Your task to perform on an android device: turn on location history Image 0: 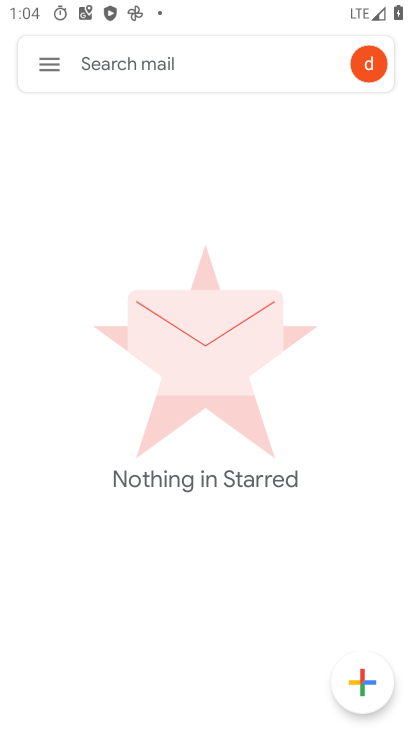
Step 0: press home button
Your task to perform on an android device: turn on location history Image 1: 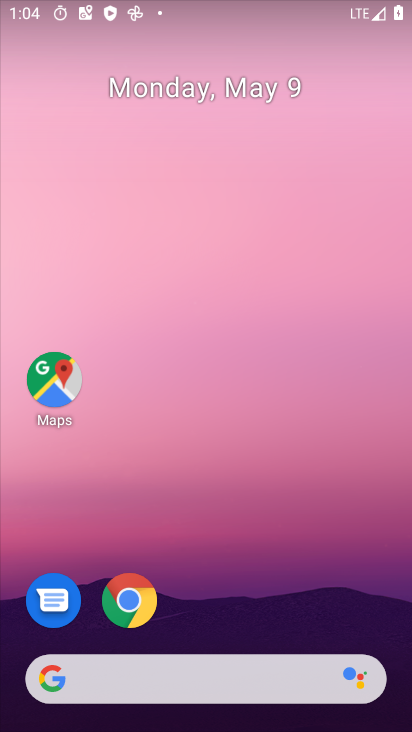
Step 1: drag from (232, 612) to (314, 200)
Your task to perform on an android device: turn on location history Image 2: 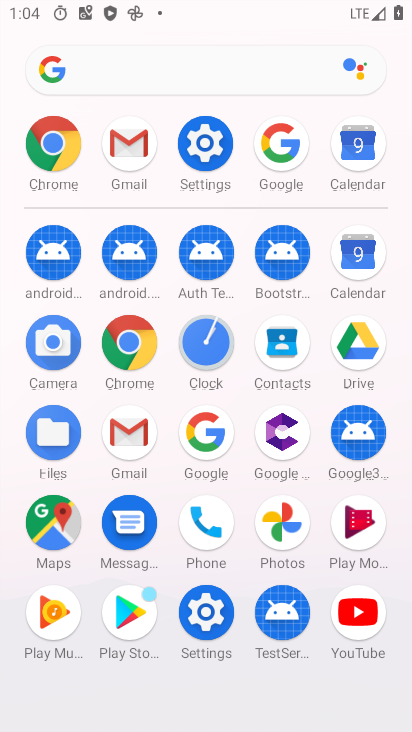
Step 2: click (118, 363)
Your task to perform on an android device: turn on location history Image 3: 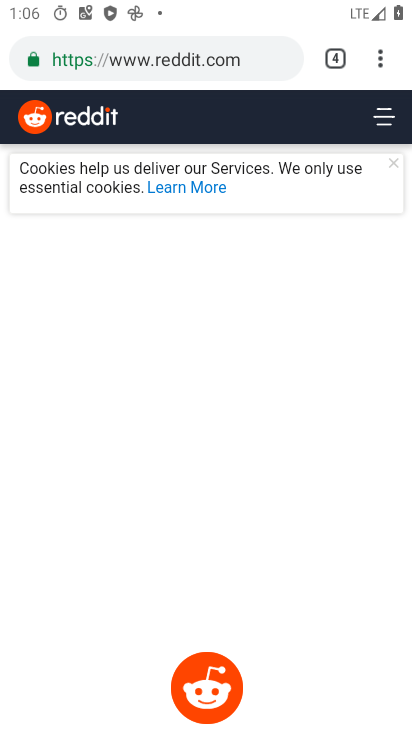
Step 3: press home button
Your task to perform on an android device: turn on location history Image 4: 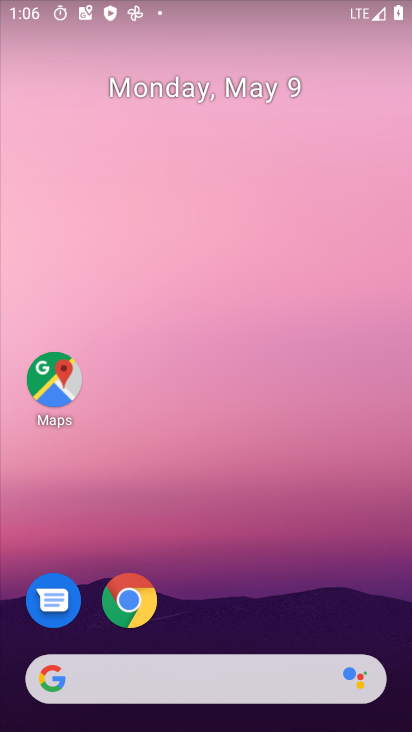
Step 4: drag from (234, 586) to (272, 197)
Your task to perform on an android device: turn on location history Image 5: 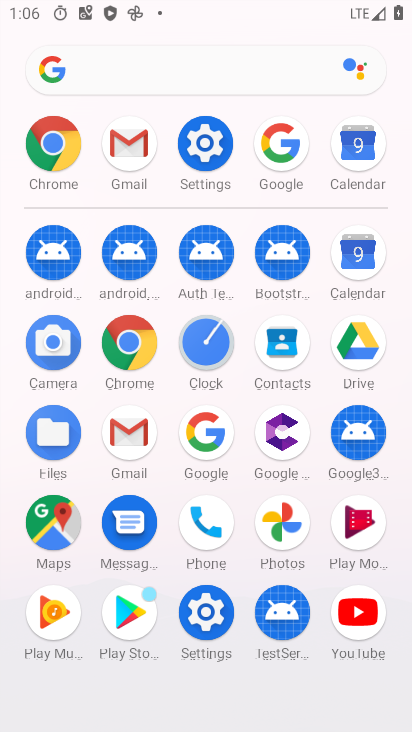
Step 5: click (210, 169)
Your task to perform on an android device: turn on location history Image 6: 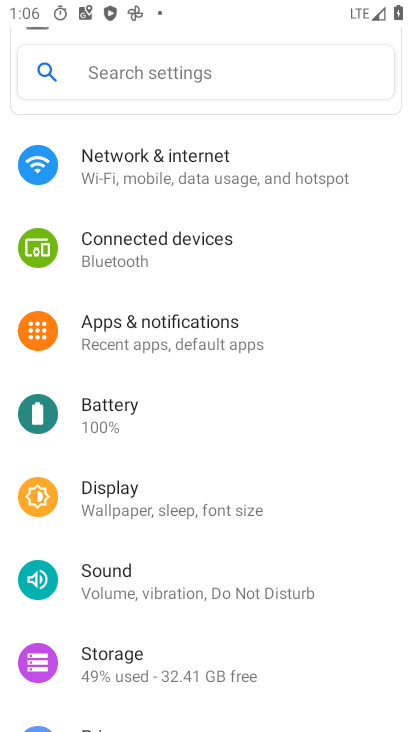
Step 6: drag from (198, 591) to (221, 282)
Your task to perform on an android device: turn on location history Image 7: 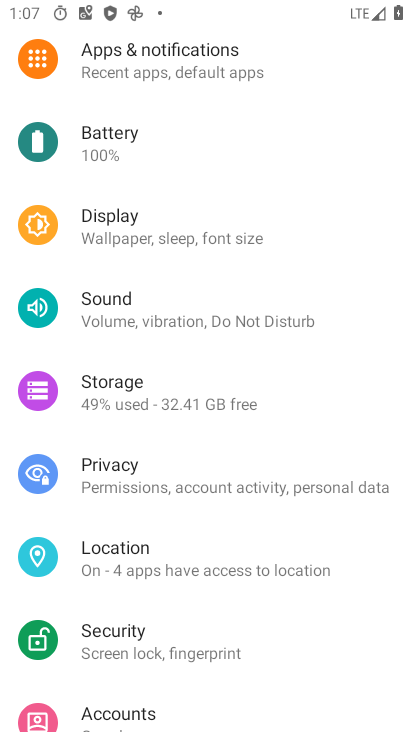
Step 7: click (192, 564)
Your task to perform on an android device: turn on location history Image 8: 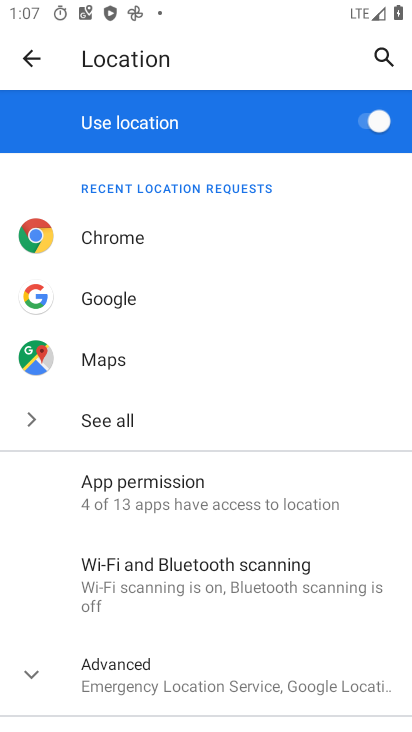
Step 8: drag from (243, 655) to (309, 446)
Your task to perform on an android device: turn on location history Image 9: 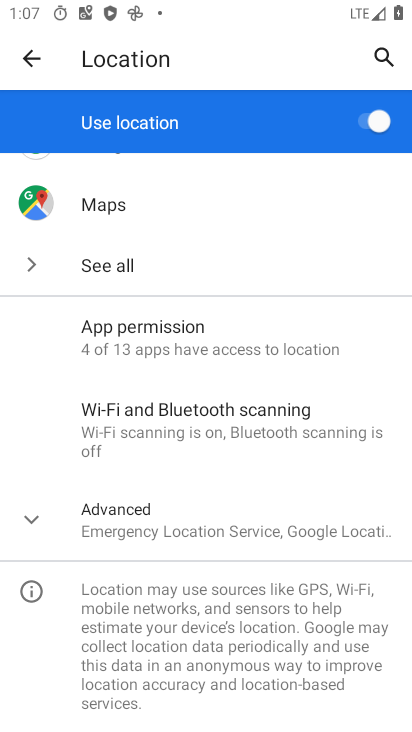
Step 9: click (252, 519)
Your task to perform on an android device: turn on location history Image 10: 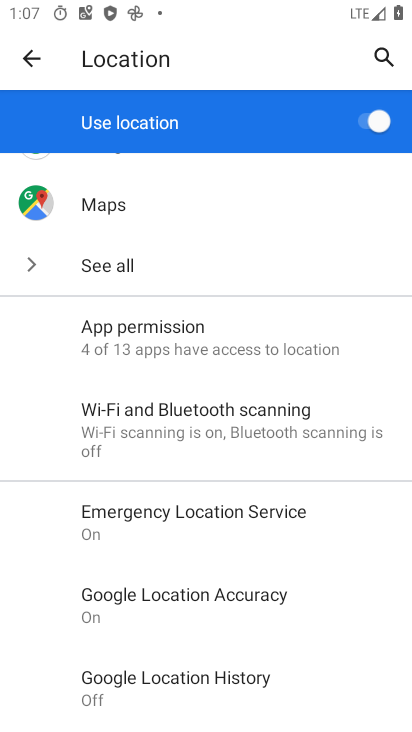
Step 10: click (231, 694)
Your task to perform on an android device: turn on location history Image 11: 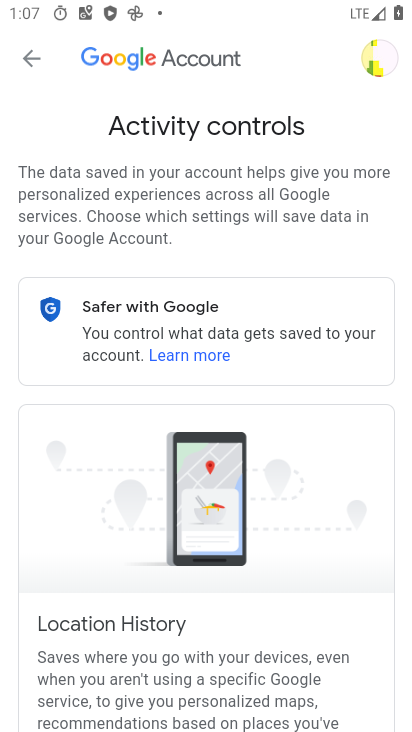
Step 11: drag from (197, 622) to (290, 221)
Your task to perform on an android device: turn on location history Image 12: 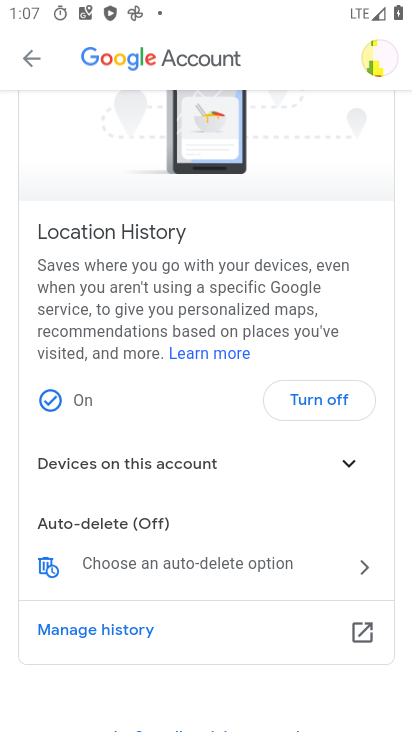
Step 12: click (340, 404)
Your task to perform on an android device: turn on location history Image 13: 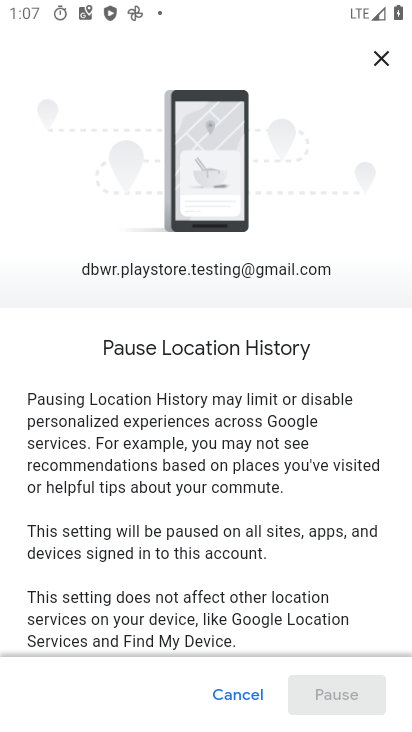
Step 13: drag from (284, 627) to (306, 16)
Your task to perform on an android device: turn on location history Image 14: 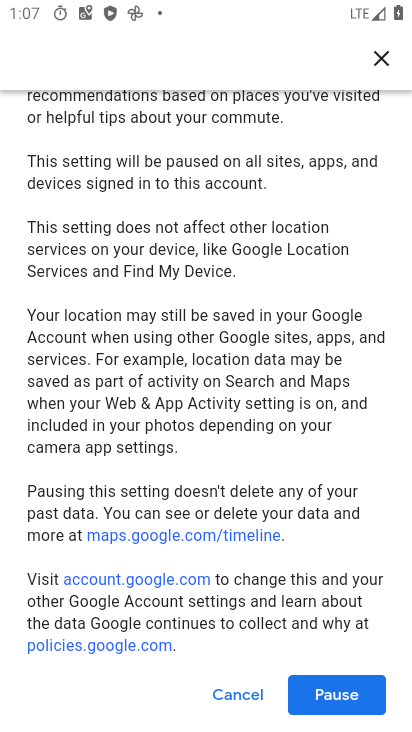
Step 14: click (330, 710)
Your task to perform on an android device: turn on location history Image 15: 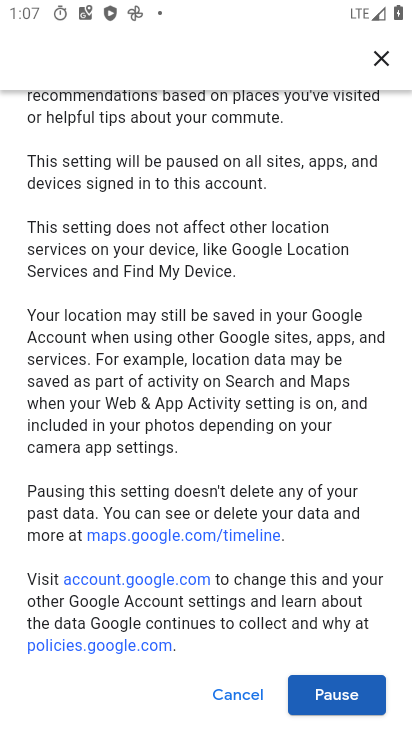
Step 15: click (323, 694)
Your task to perform on an android device: turn on location history Image 16: 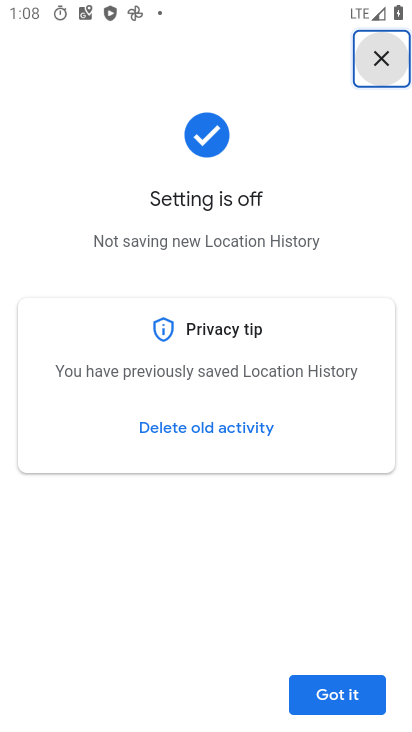
Step 16: click (329, 680)
Your task to perform on an android device: turn on location history Image 17: 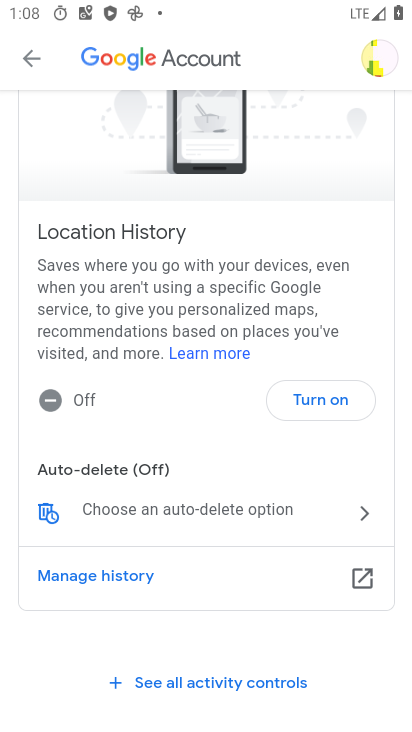
Step 17: task complete